Your task to perform on an android device: Open Chrome and go to the settings page Image 0: 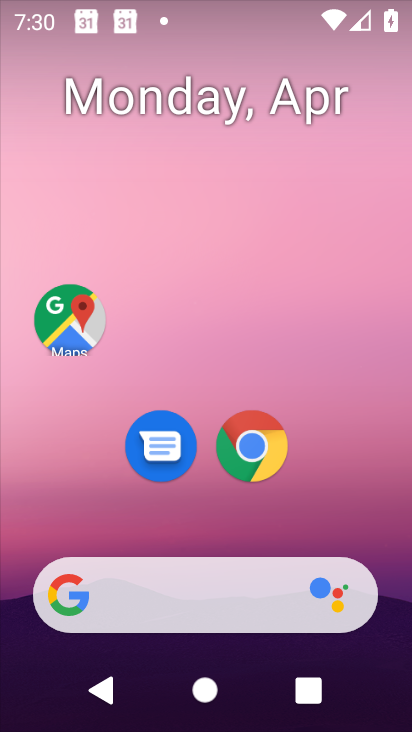
Step 0: click (251, 442)
Your task to perform on an android device: Open Chrome and go to the settings page Image 1: 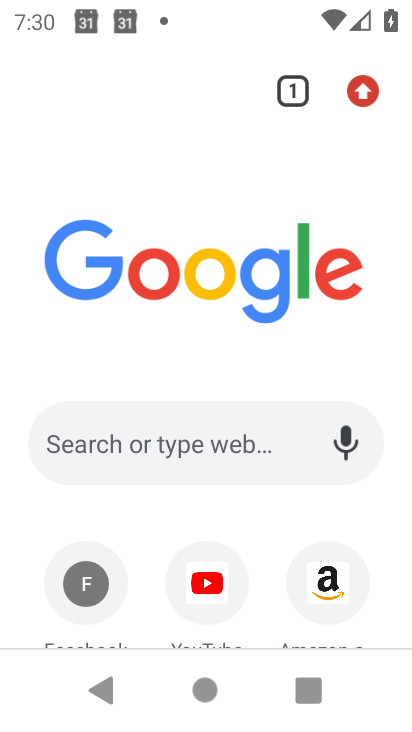
Step 1: task complete